Your task to perform on an android device: Open Google Chrome and click the shortcut for Amazon.com Image 0: 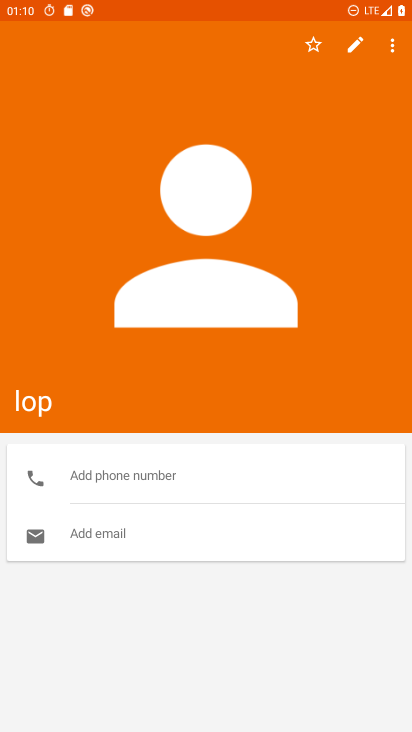
Step 0: press home button
Your task to perform on an android device: Open Google Chrome and click the shortcut for Amazon.com Image 1: 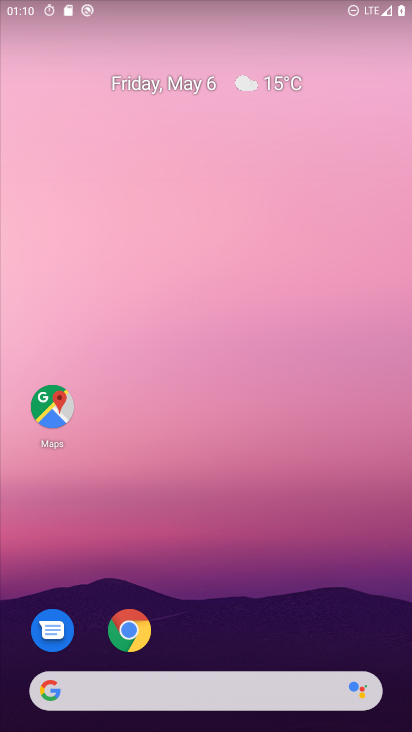
Step 1: drag from (331, 600) to (404, 552)
Your task to perform on an android device: Open Google Chrome and click the shortcut for Amazon.com Image 2: 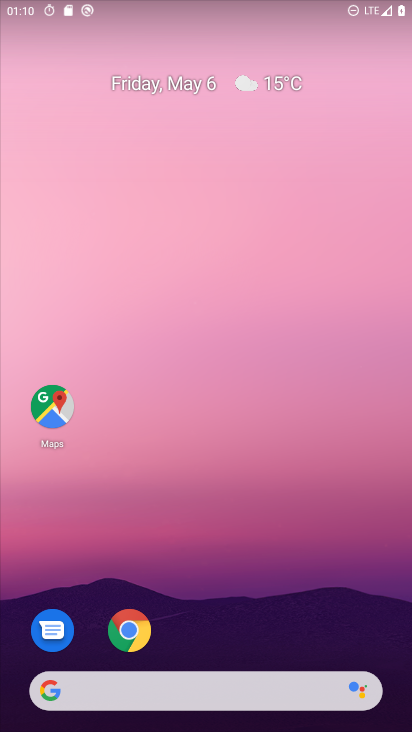
Step 2: drag from (293, 498) to (247, 19)
Your task to perform on an android device: Open Google Chrome and click the shortcut for Amazon.com Image 3: 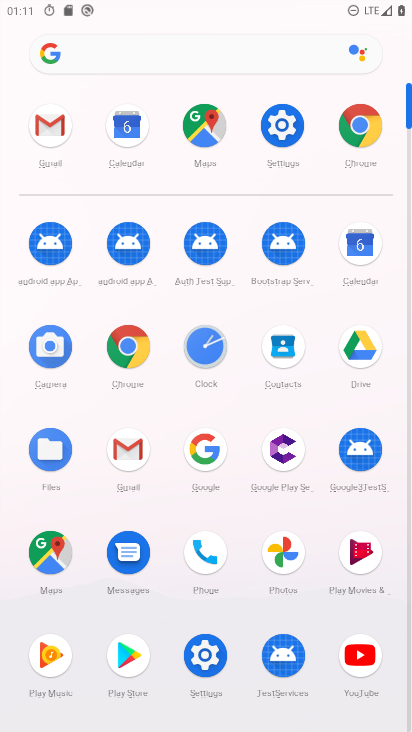
Step 3: click (366, 129)
Your task to perform on an android device: Open Google Chrome and click the shortcut for Amazon.com Image 4: 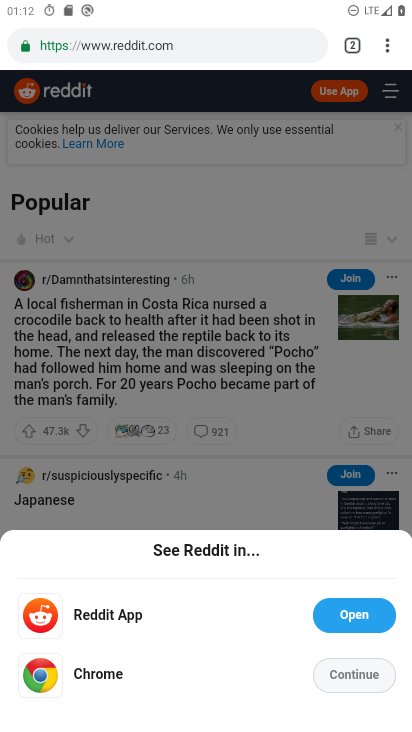
Step 4: click (384, 43)
Your task to perform on an android device: Open Google Chrome and click the shortcut for Amazon.com Image 5: 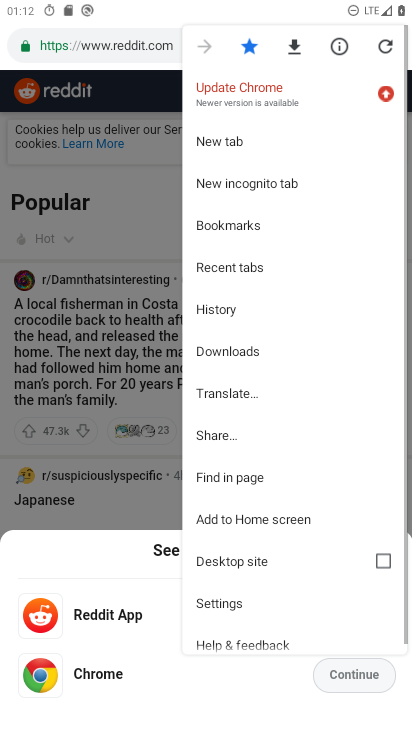
Step 5: click (232, 145)
Your task to perform on an android device: Open Google Chrome and click the shortcut for Amazon.com Image 6: 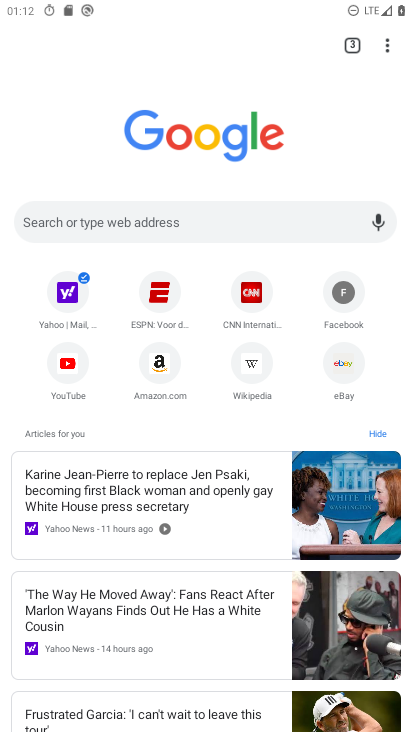
Step 6: click (155, 353)
Your task to perform on an android device: Open Google Chrome and click the shortcut for Amazon.com Image 7: 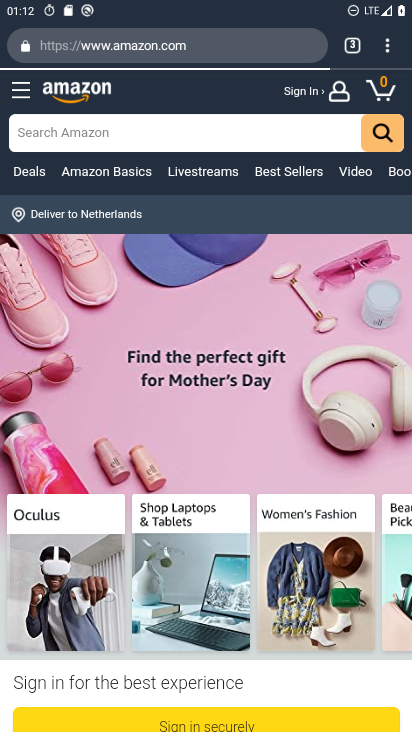
Step 7: task complete